Your task to perform on an android device: change notifications settings Image 0: 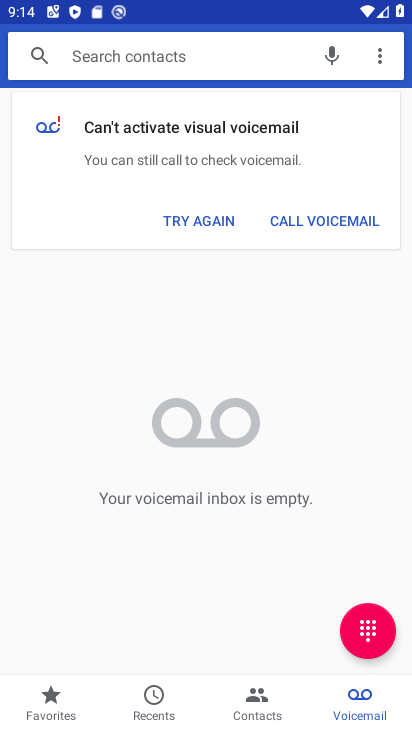
Step 0: press home button
Your task to perform on an android device: change notifications settings Image 1: 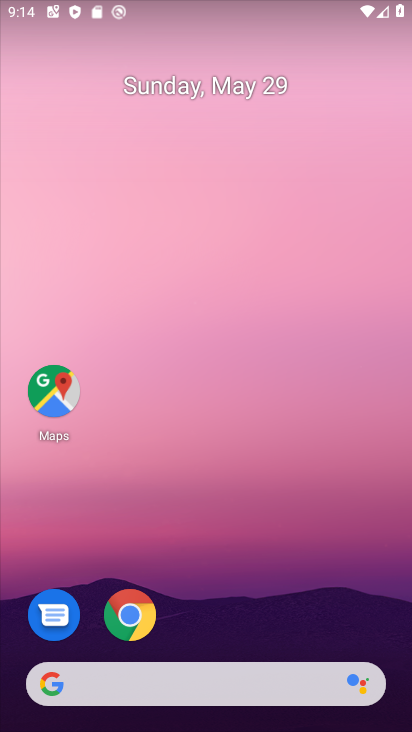
Step 1: drag from (226, 633) to (267, 1)
Your task to perform on an android device: change notifications settings Image 2: 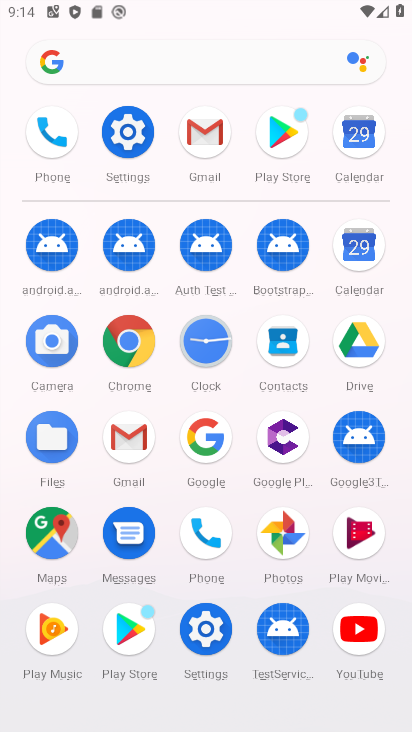
Step 2: click (131, 135)
Your task to perform on an android device: change notifications settings Image 3: 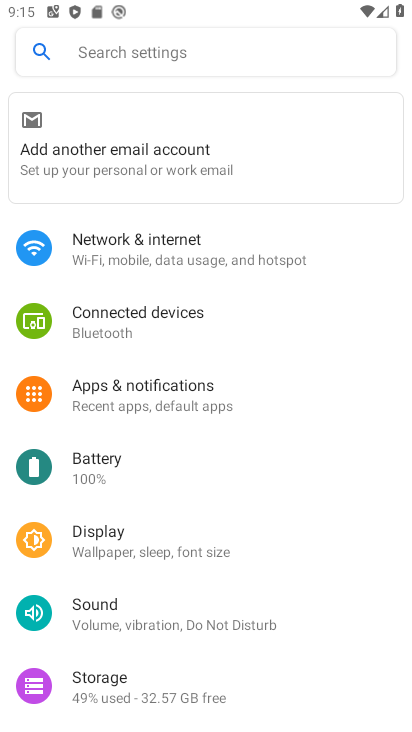
Step 3: click (200, 379)
Your task to perform on an android device: change notifications settings Image 4: 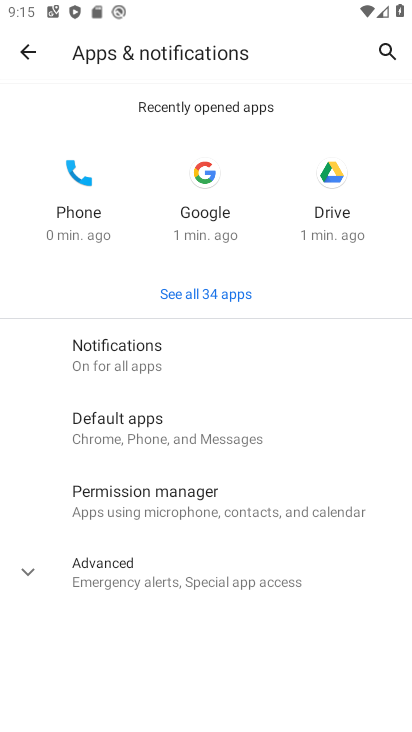
Step 4: click (90, 349)
Your task to perform on an android device: change notifications settings Image 5: 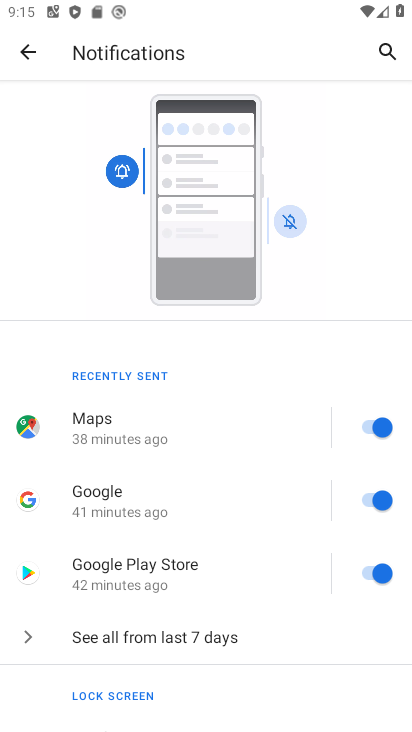
Step 5: drag from (187, 720) to (274, 131)
Your task to perform on an android device: change notifications settings Image 6: 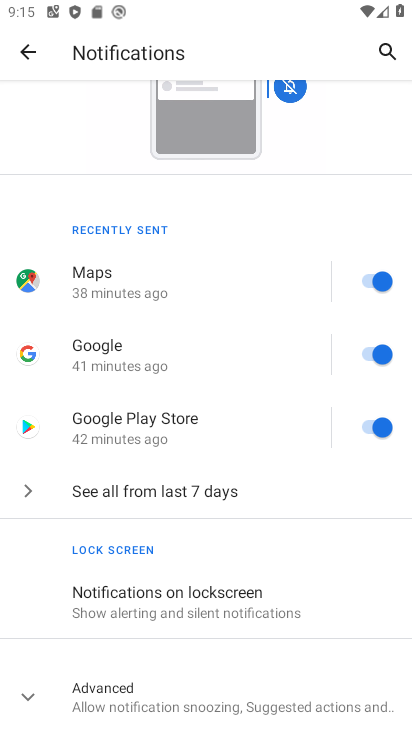
Step 6: click (207, 487)
Your task to perform on an android device: change notifications settings Image 7: 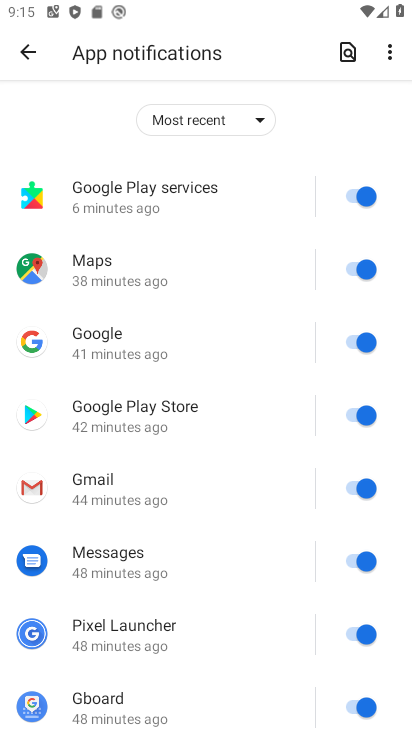
Step 7: click (345, 198)
Your task to perform on an android device: change notifications settings Image 8: 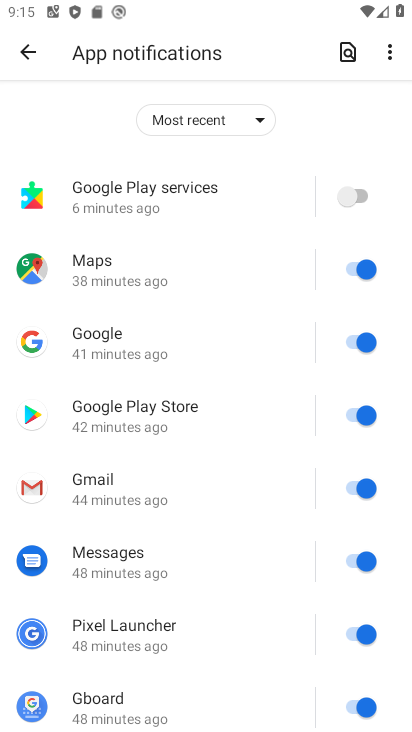
Step 8: click (353, 298)
Your task to perform on an android device: change notifications settings Image 9: 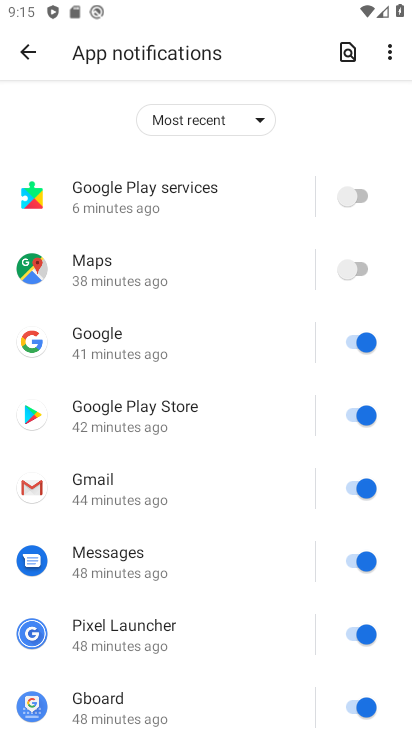
Step 9: click (349, 340)
Your task to perform on an android device: change notifications settings Image 10: 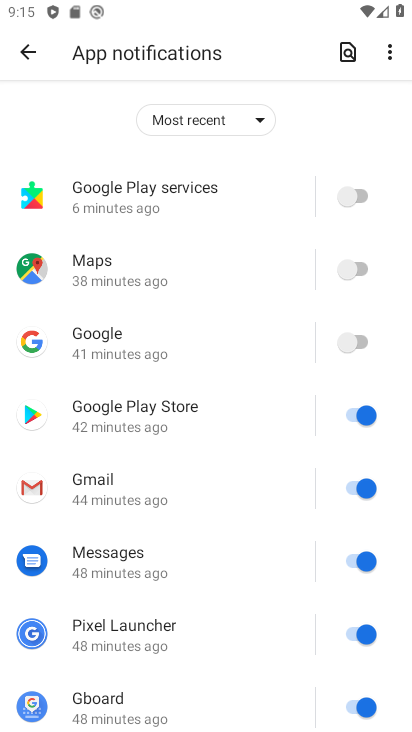
Step 10: click (347, 414)
Your task to perform on an android device: change notifications settings Image 11: 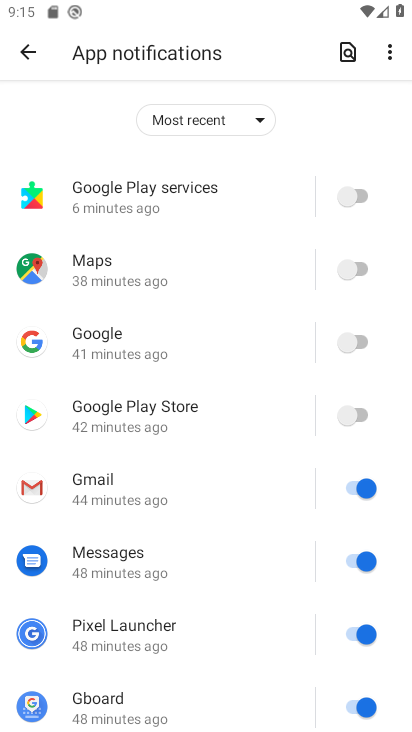
Step 11: click (368, 485)
Your task to perform on an android device: change notifications settings Image 12: 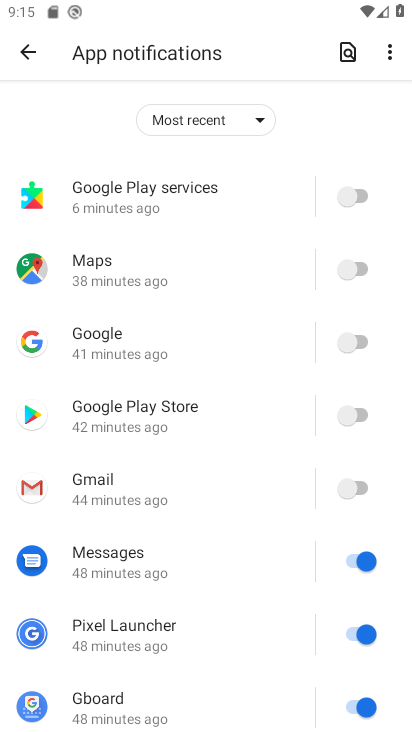
Step 12: click (358, 566)
Your task to perform on an android device: change notifications settings Image 13: 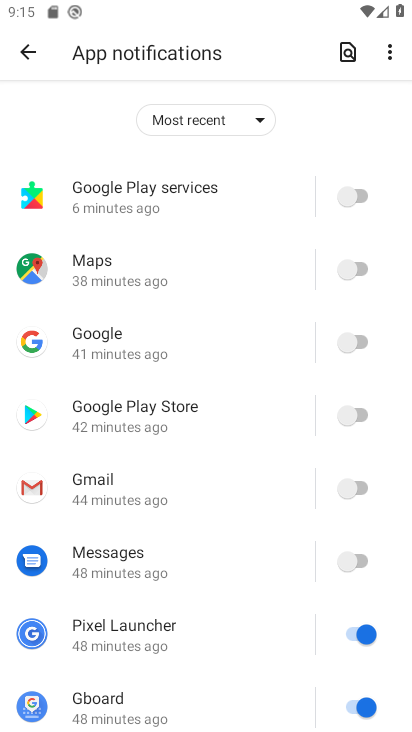
Step 13: click (375, 633)
Your task to perform on an android device: change notifications settings Image 14: 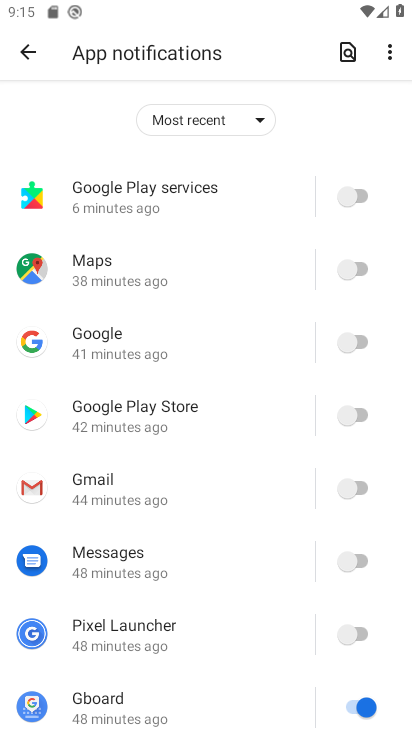
Step 14: click (358, 710)
Your task to perform on an android device: change notifications settings Image 15: 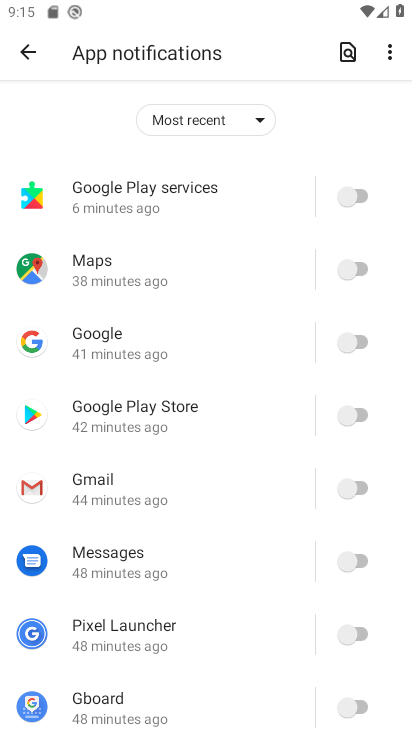
Step 15: drag from (224, 686) to (339, 46)
Your task to perform on an android device: change notifications settings Image 16: 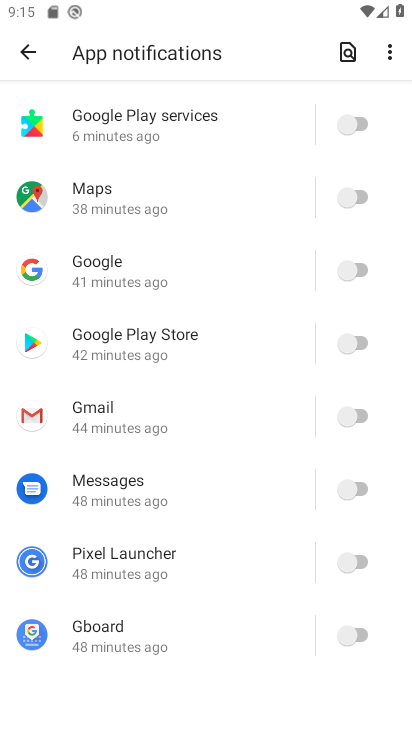
Step 16: drag from (228, 417) to (203, 14)
Your task to perform on an android device: change notifications settings Image 17: 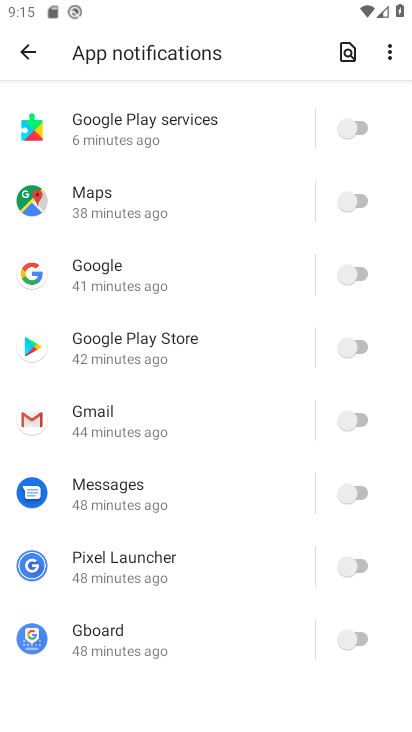
Step 17: click (26, 55)
Your task to perform on an android device: change notifications settings Image 18: 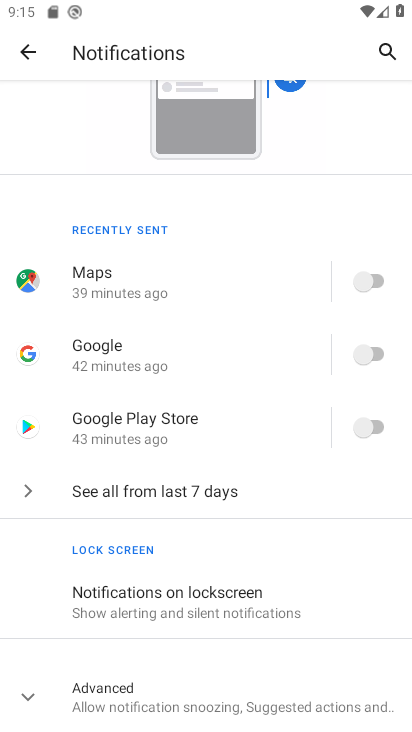
Step 18: click (112, 609)
Your task to perform on an android device: change notifications settings Image 19: 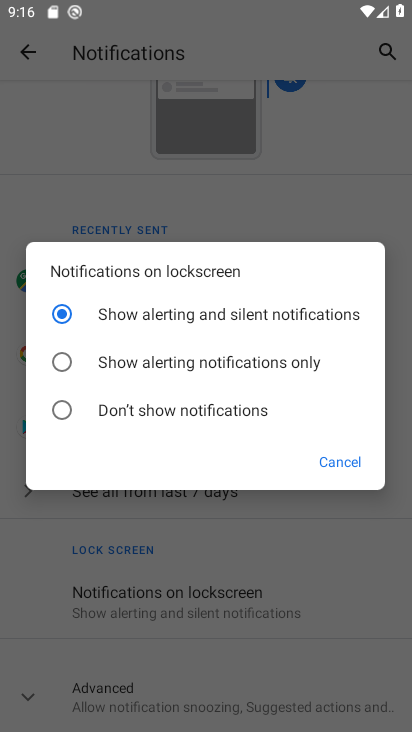
Step 19: click (120, 367)
Your task to perform on an android device: change notifications settings Image 20: 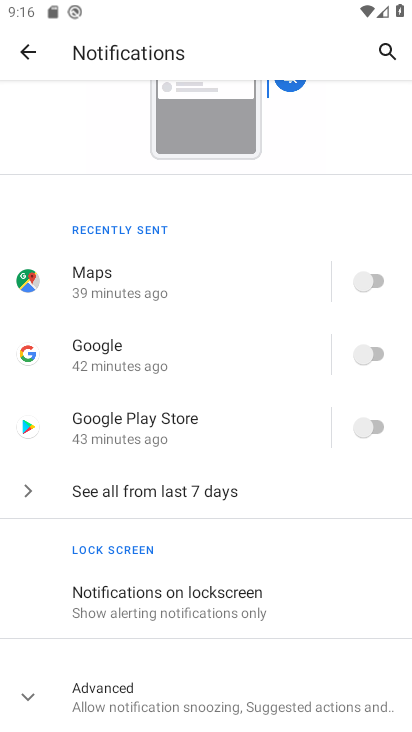
Step 20: click (127, 695)
Your task to perform on an android device: change notifications settings Image 21: 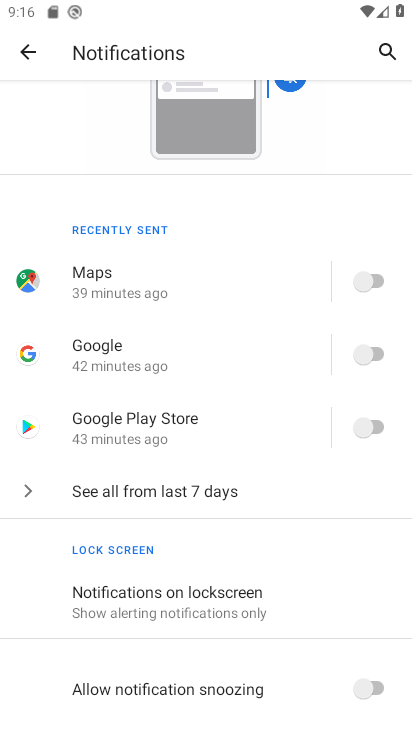
Step 21: drag from (149, 663) to (192, 97)
Your task to perform on an android device: change notifications settings Image 22: 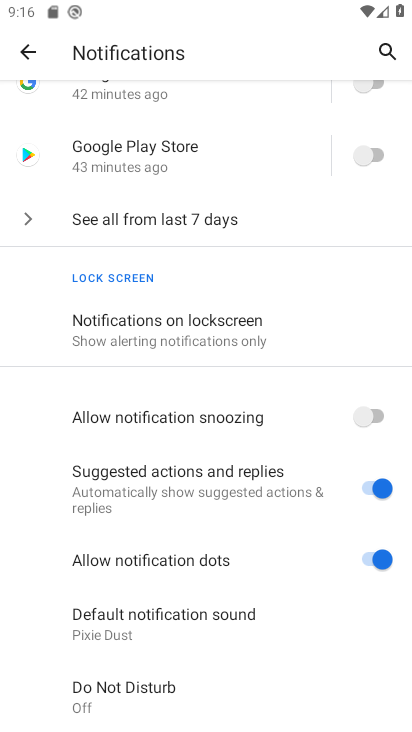
Step 22: click (354, 426)
Your task to perform on an android device: change notifications settings Image 23: 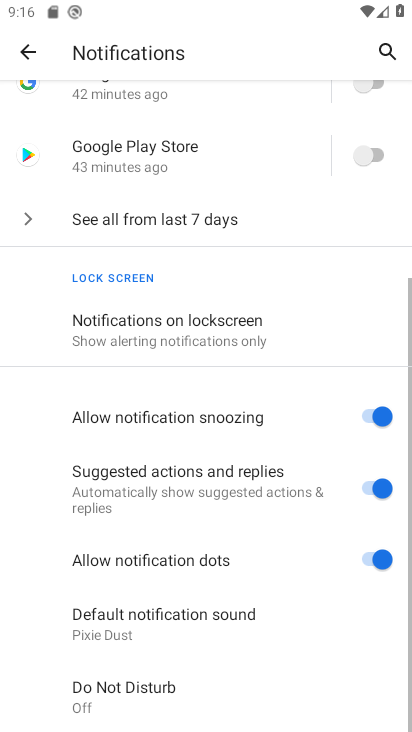
Step 23: click (370, 500)
Your task to perform on an android device: change notifications settings Image 24: 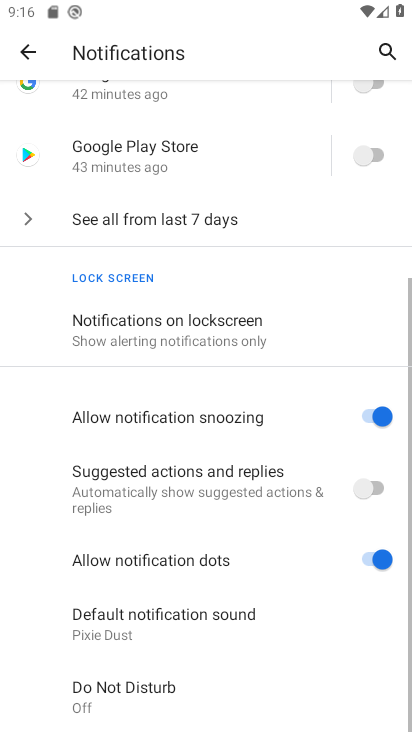
Step 24: click (376, 557)
Your task to perform on an android device: change notifications settings Image 25: 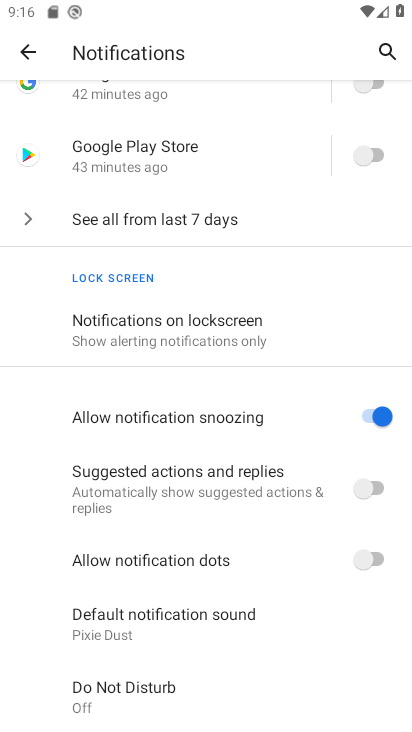
Step 25: task complete